Your task to perform on an android device: change keyboard looks Image 0: 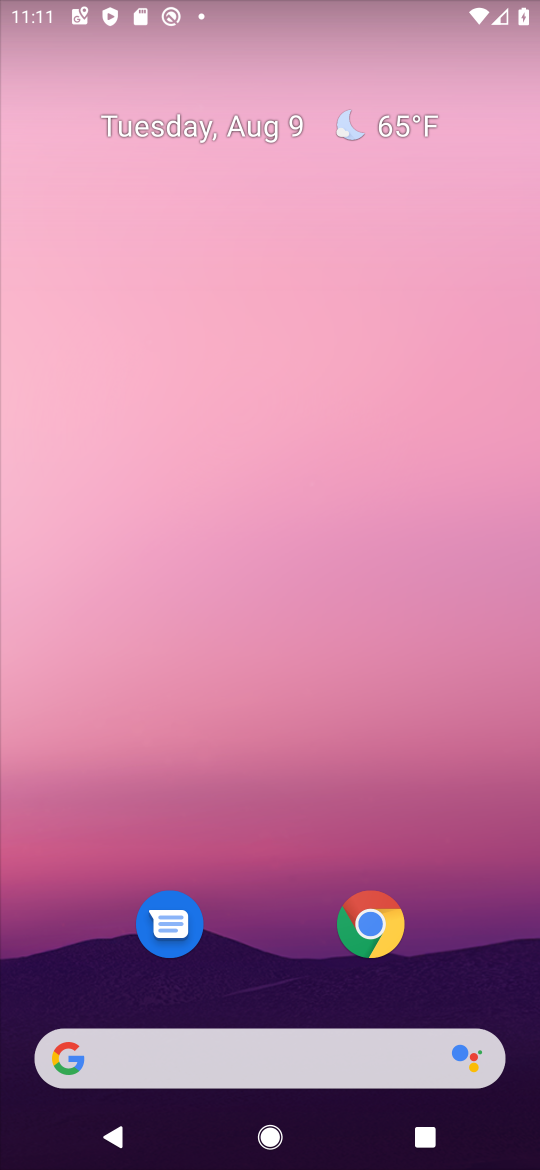
Step 0: press home button
Your task to perform on an android device: change keyboard looks Image 1: 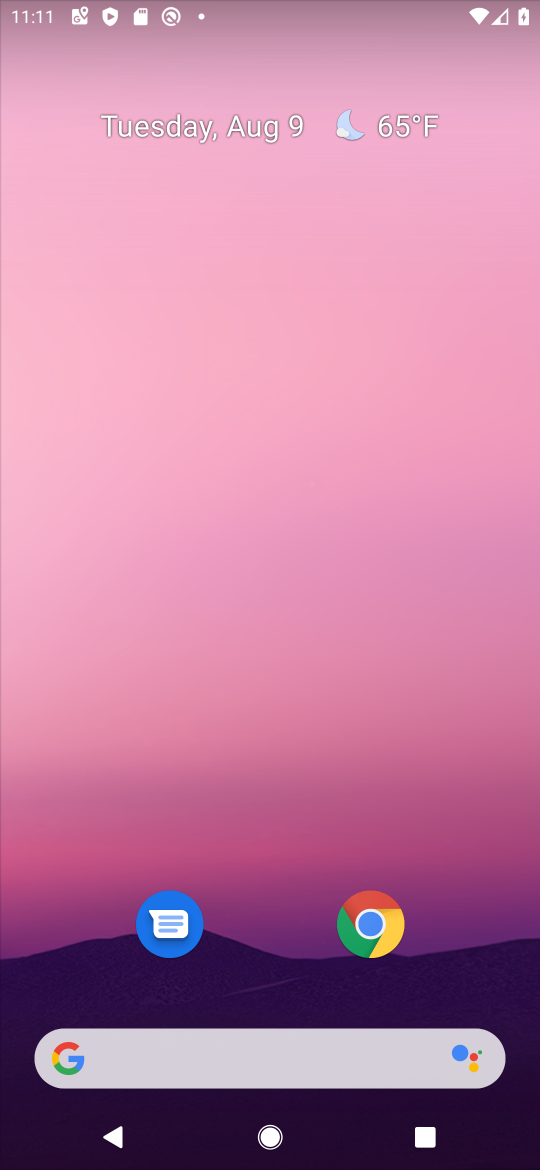
Step 1: drag from (269, 955) to (325, 111)
Your task to perform on an android device: change keyboard looks Image 2: 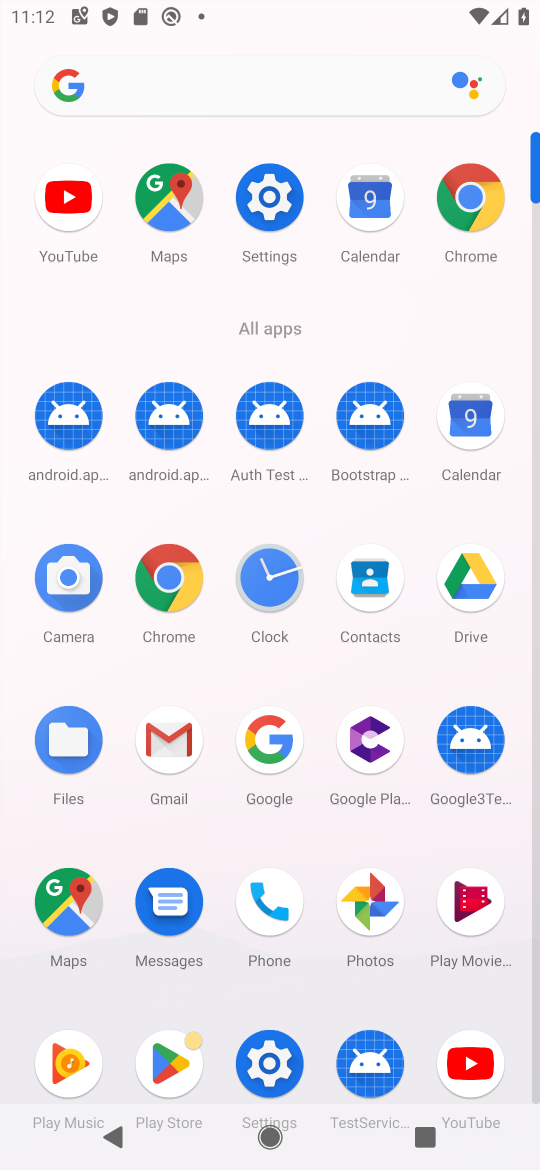
Step 2: drag from (324, 690) to (338, 209)
Your task to perform on an android device: change keyboard looks Image 3: 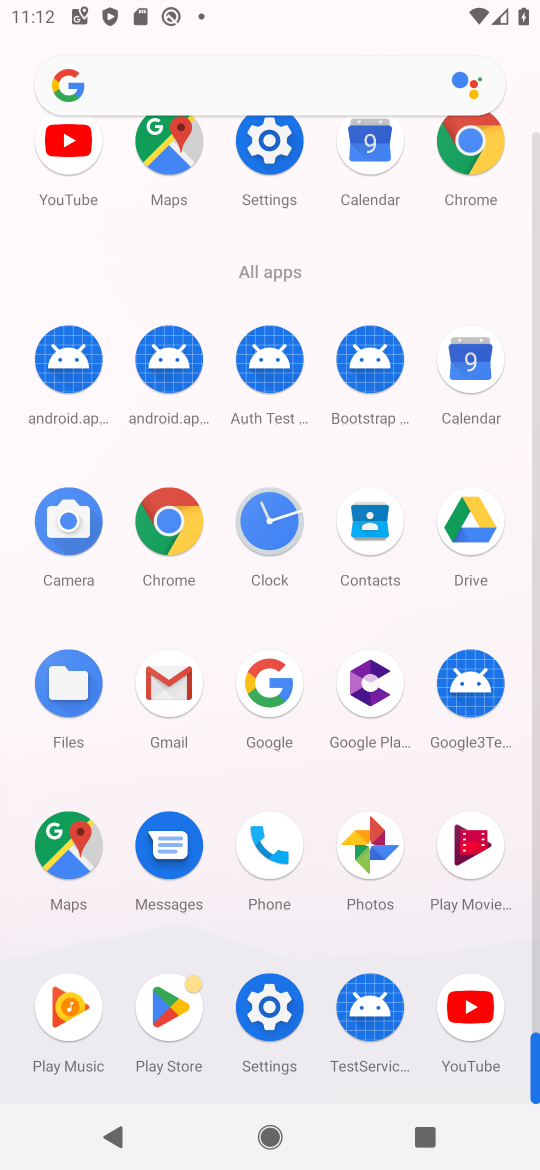
Step 3: click (278, 988)
Your task to perform on an android device: change keyboard looks Image 4: 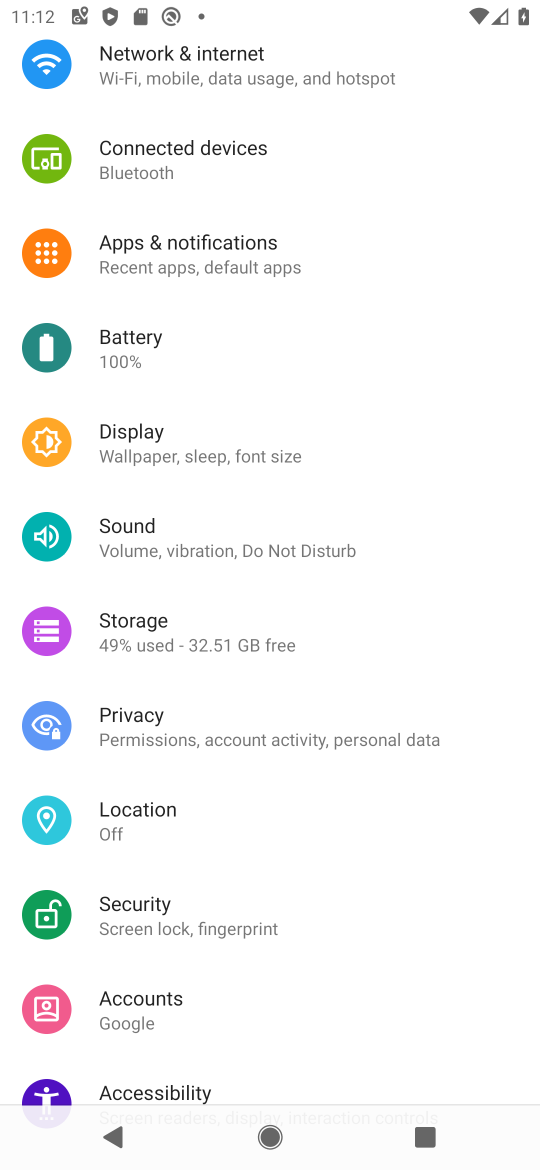
Step 4: drag from (247, 934) to (249, 391)
Your task to perform on an android device: change keyboard looks Image 5: 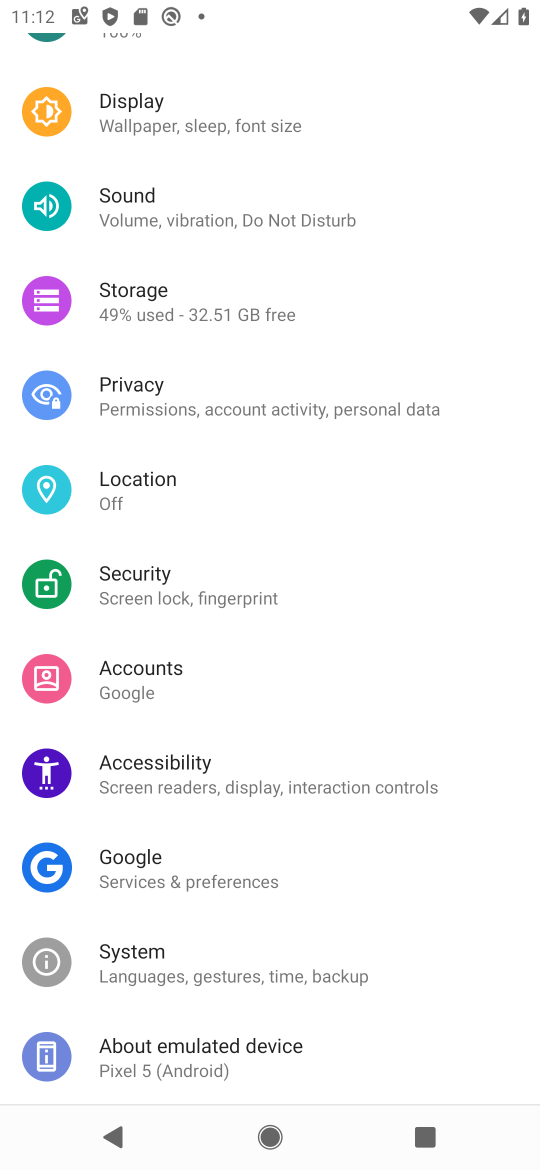
Step 5: click (160, 964)
Your task to perform on an android device: change keyboard looks Image 6: 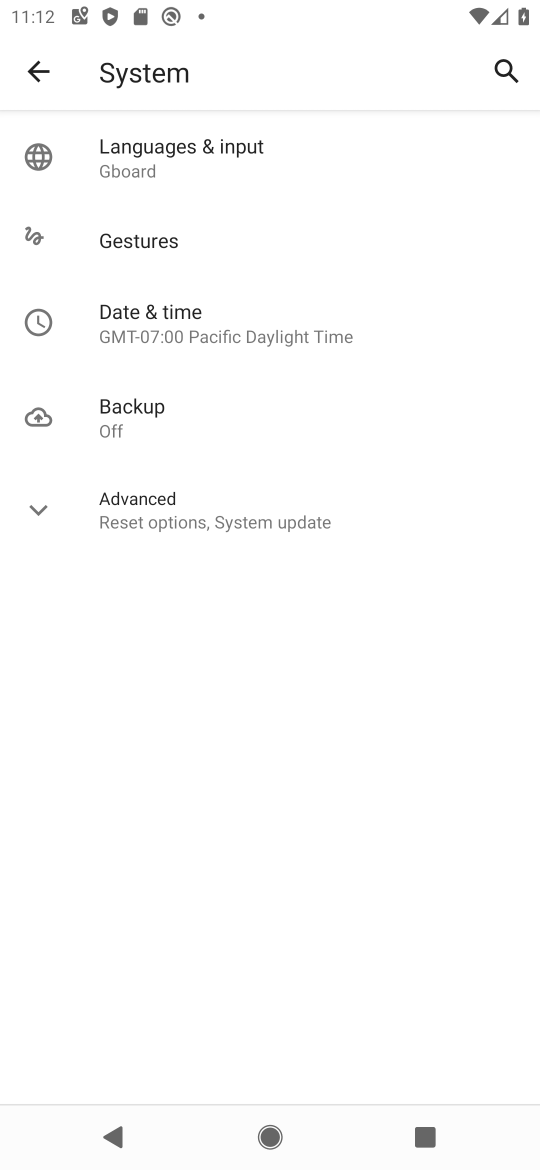
Step 6: click (183, 170)
Your task to perform on an android device: change keyboard looks Image 7: 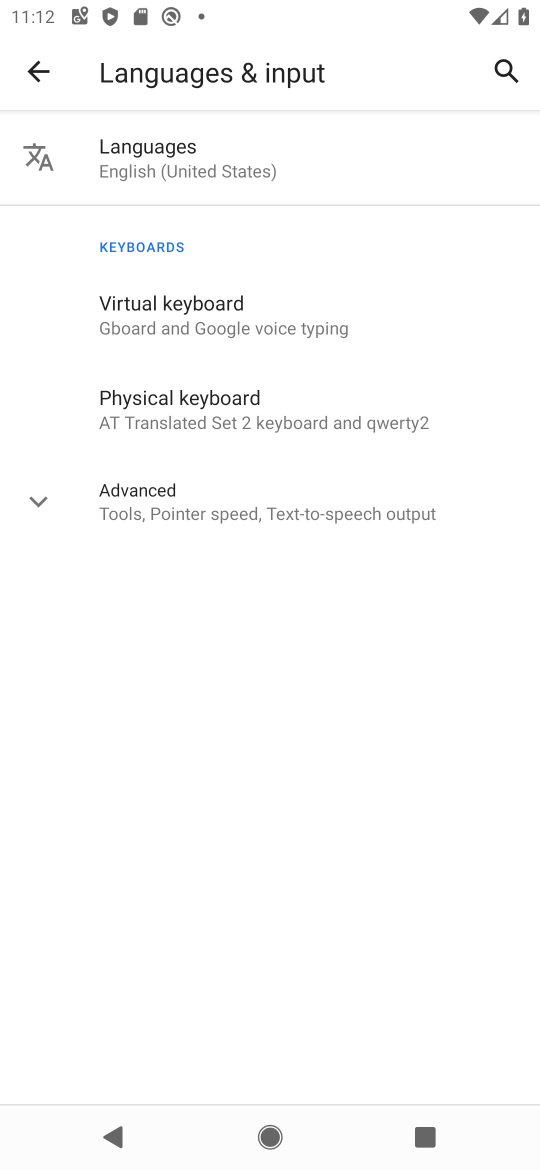
Step 7: click (180, 312)
Your task to perform on an android device: change keyboard looks Image 8: 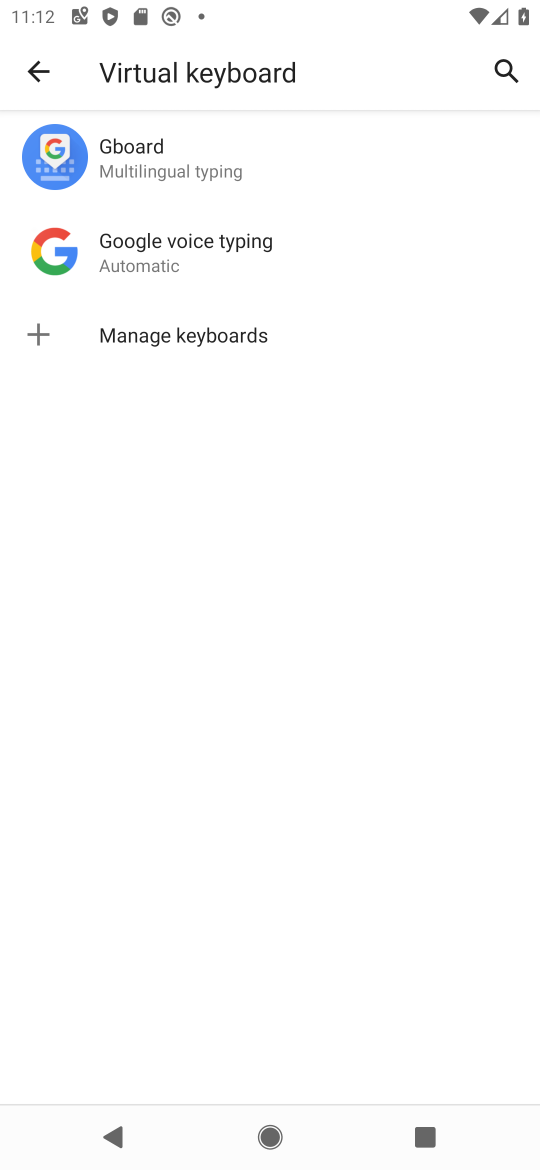
Step 8: click (92, 155)
Your task to perform on an android device: change keyboard looks Image 9: 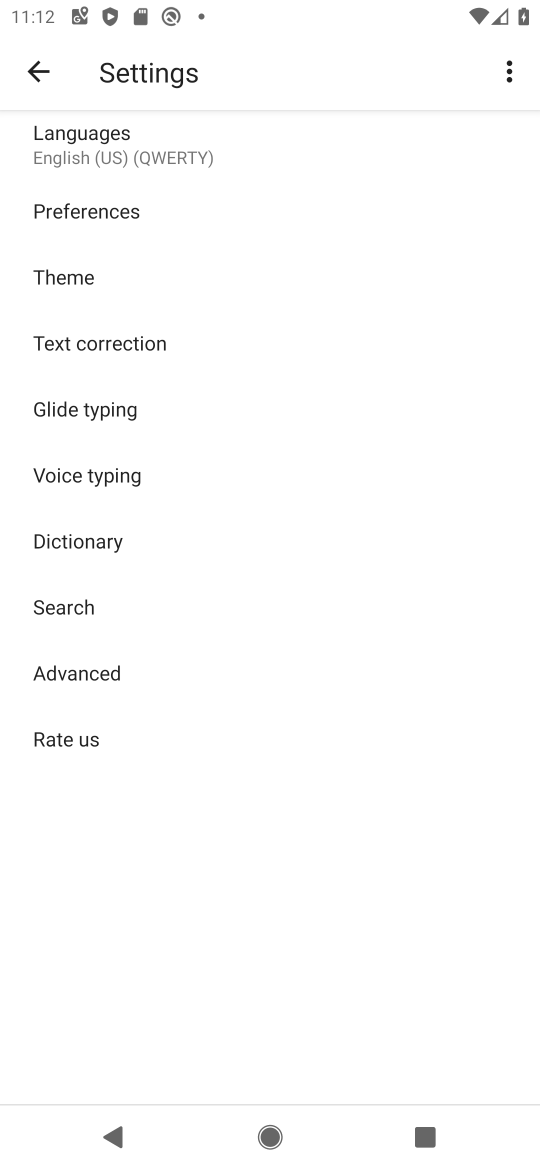
Step 9: click (93, 280)
Your task to perform on an android device: change keyboard looks Image 10: 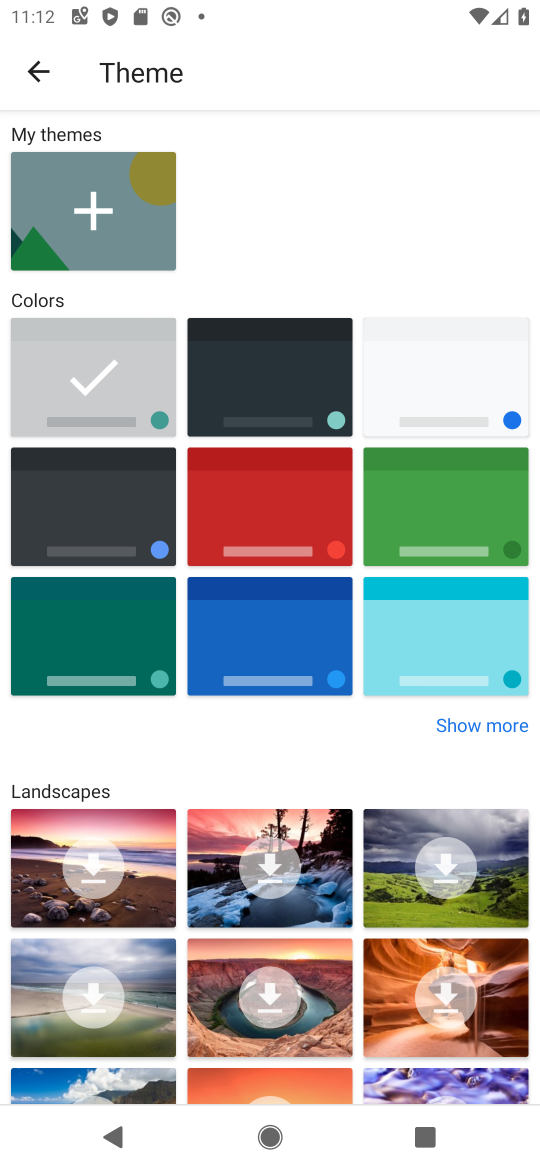
Step 10: click (437, 388)
Your task to perform on an android device: change keyboard looks Image 11: 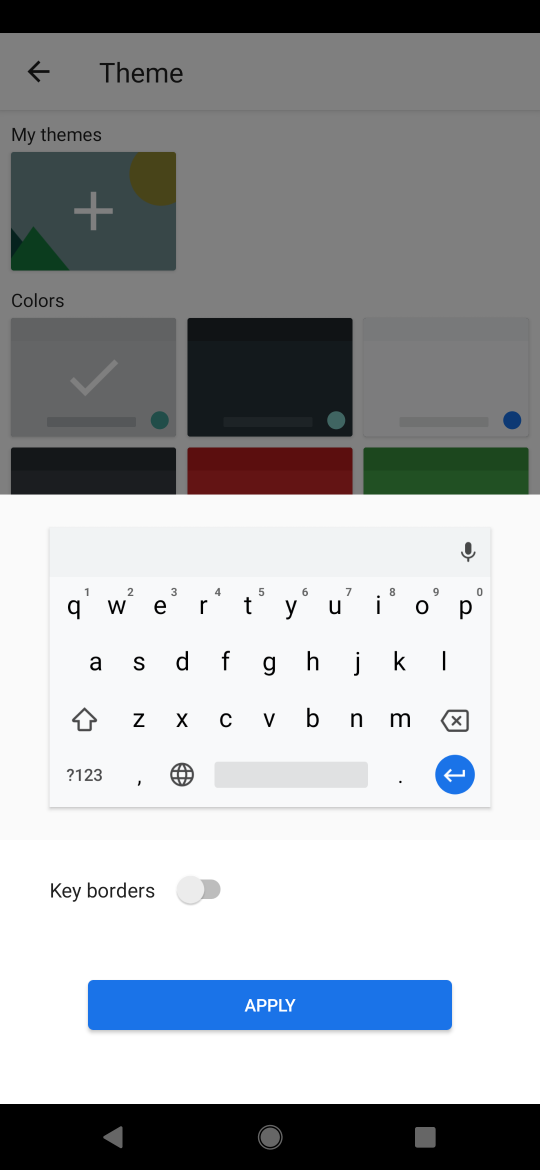
Step 11: click (222, 885)
Your task to perform on an android device: change keyboard looks Image 12: 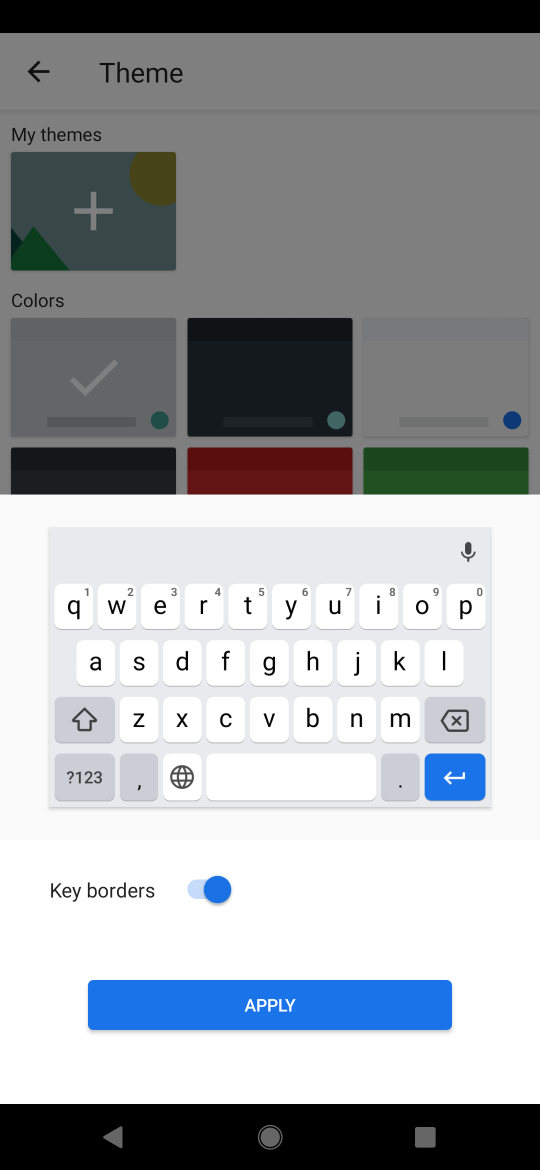
Step 12: click (341, 1002)
Your task to perform on an android device: change keyboard looks Image 13: 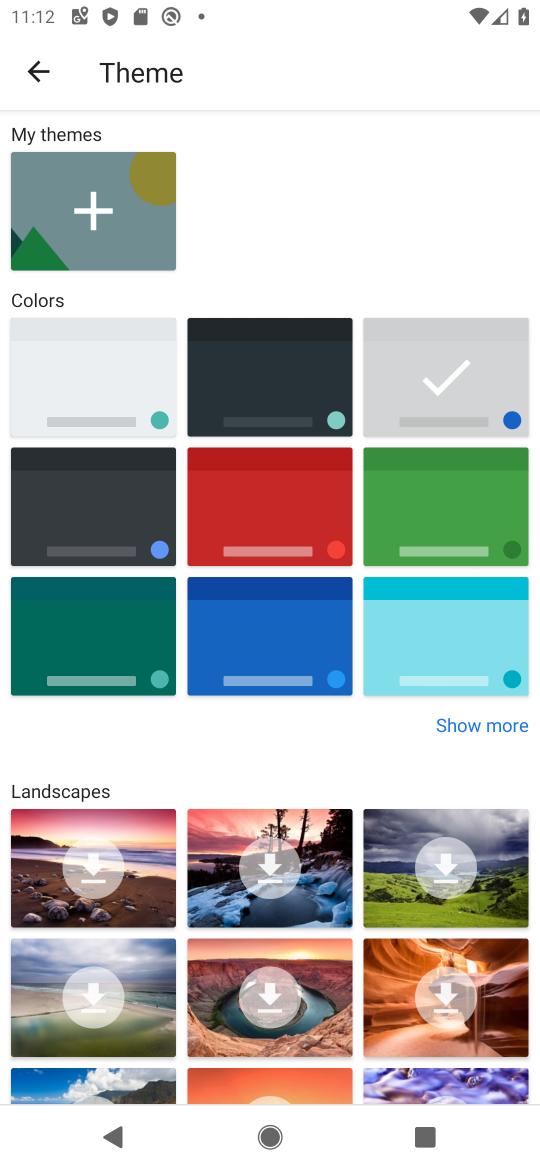
Step 13: task complete